Your task to perform on an android device: read, delete, or share a saved page in the chrome app Image 0: 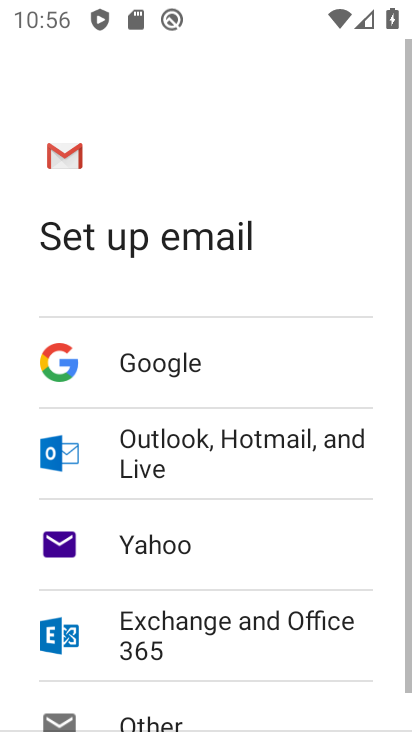
Step 0: press home button
Your task to perform on an android device: read, delete, or share a saved page in the chrome app Image 1: 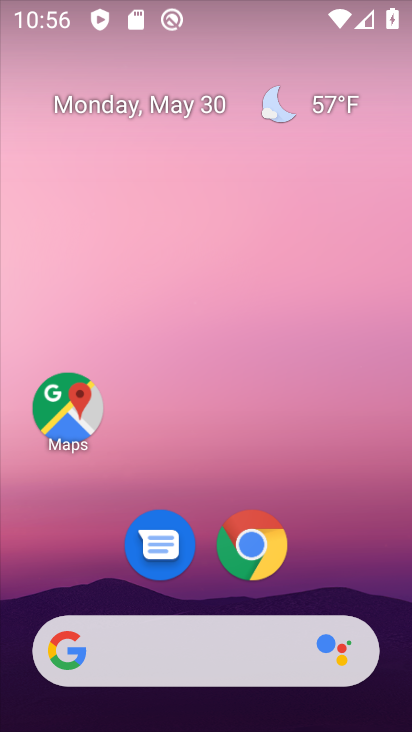
Step 1: click (250, 553)
Your task to perform on an android device: read, delete, or share a saved page in the chrome app Image 2: 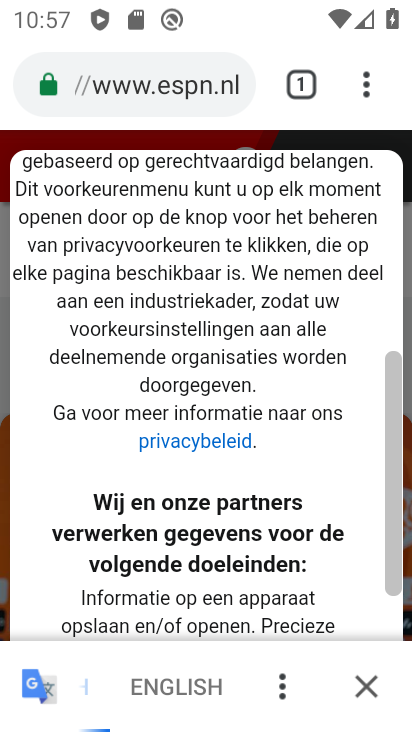
Step 2: click (368, 70)
Your task to perform on an android device: read, delete, or share a saved page in the chrome app Image 3: 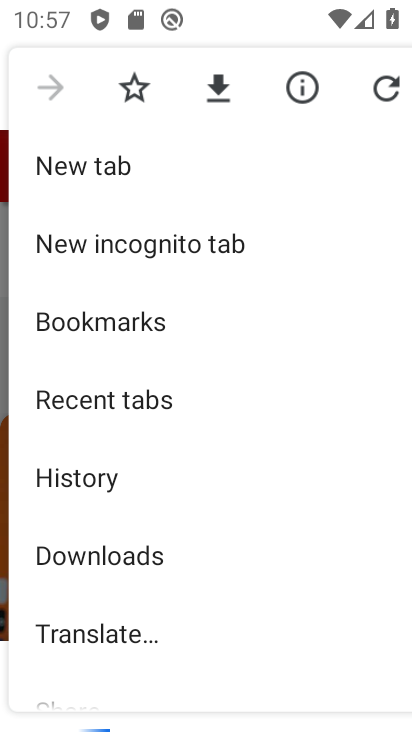
Step 3: drag from (111, 559) to (179, 237)
Your task to perform on an android device: read, delete, or share a saved page in the chrome app Image 4: 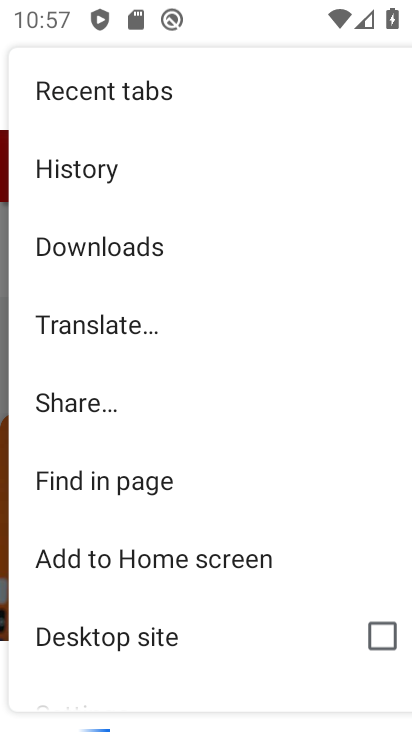
Step 4: click (90, 393)
Your task to perform on an android device: read, delete, or share a saved page in the chrome app Image 5: 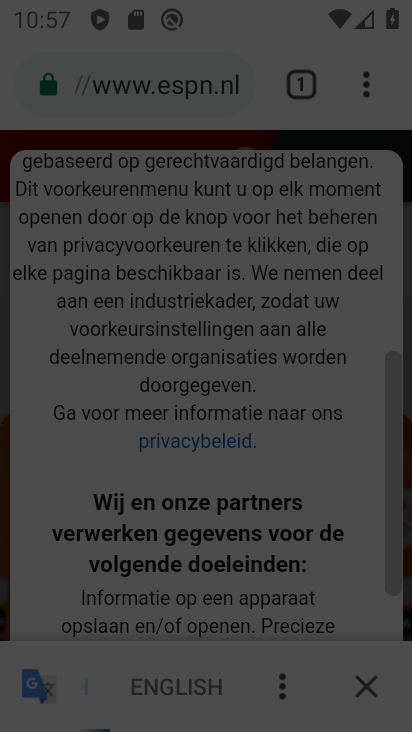
Step 5: task complete